Your task to perform on an android device: check the backup settings in the google photos Image 0: 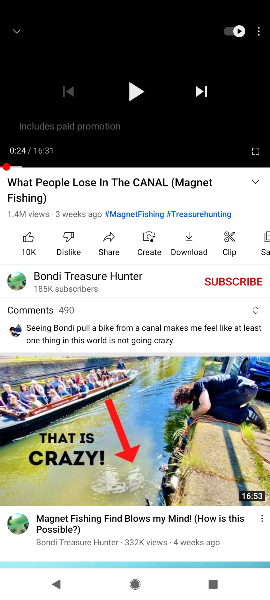
Step 0: press home button
Your task to perform on an android device: check the backup settings in the google photos Image 1: 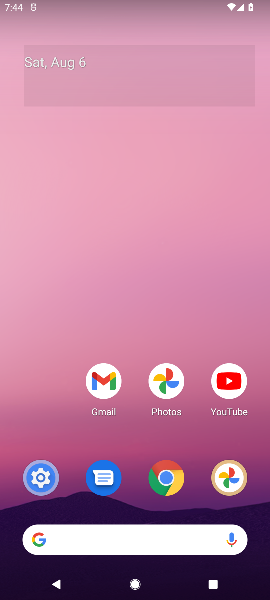
Step 1: click (161, 383)
Your task to perform on an android device: check the backup settings in the google photos Image 2: 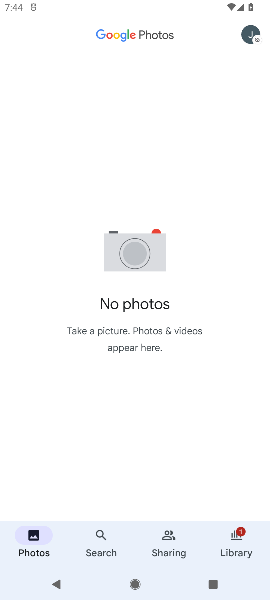
Step 2: click (252, 32)
Your task to perform on an android device: check the backup settings in the google photos Image 3: 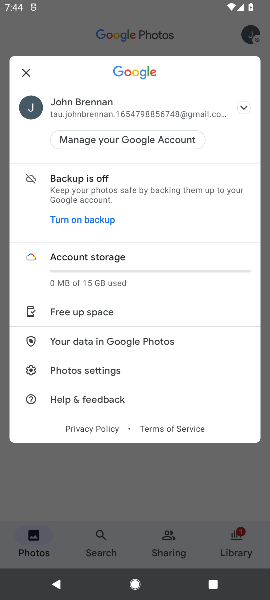
Step 3: click (96, 185)
Your task to perform on an android device: check the backup settings in the google photos Image 4: 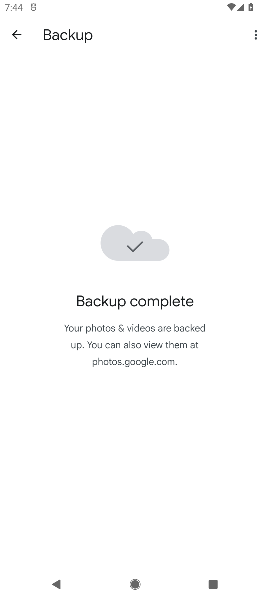
Step 4: task complete